Your task to perform on an android device: Go to wifi settings Image 0: 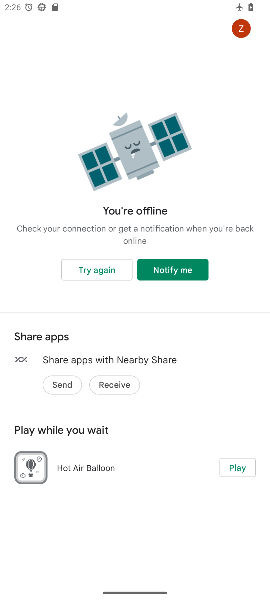
Step 0: press home button
Your task to perform on an android device: Go to wifi settings Image 1: 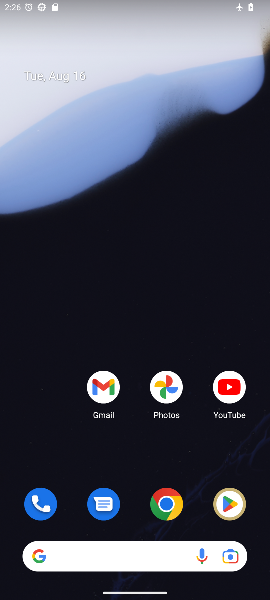
Step 1: drag from (136, 478) to (118, 17)
Your task to perform on an android device: Go to wifi settings Image 2: 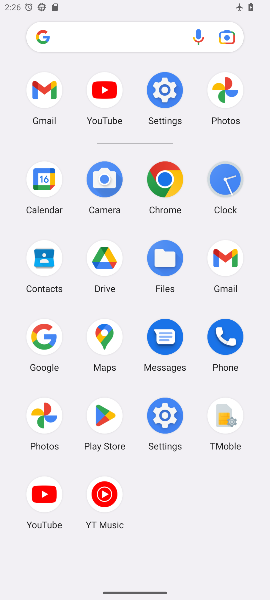
Step 2: click (167, 86)
Your task to perform on an android device: Go to wifi settings Image 3: 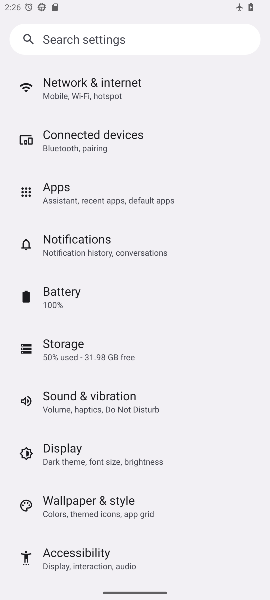
Step 3: click (107, 78)
Your task to perform on an android device: Go to wifi settings Image 4: 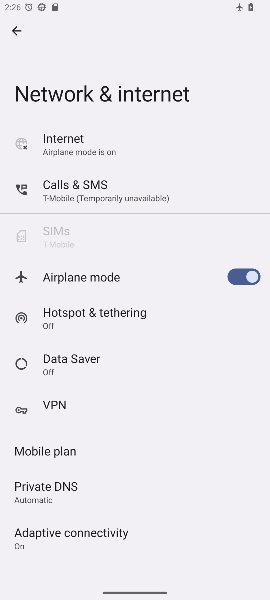
Step 4: click (63, 137)
Your task to perform on an android device: Go to wifi settings Image 5: 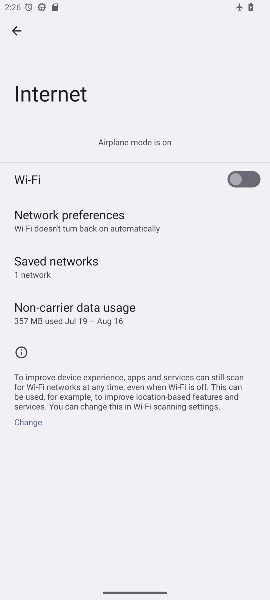
Step 5: task complete